Your task to perform on an android device: move an email to a new category in the gmail app Image 0: 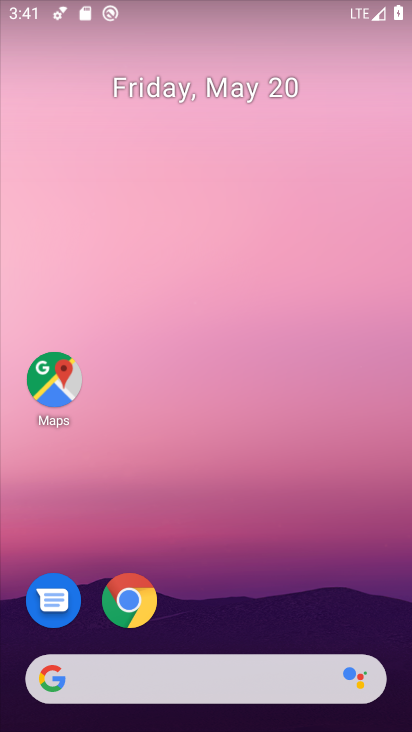
Step 0: drag from (368, 608) to (360, 310)
Your task to perform on an android device: move an email to a new category in the gmail app Image 1: 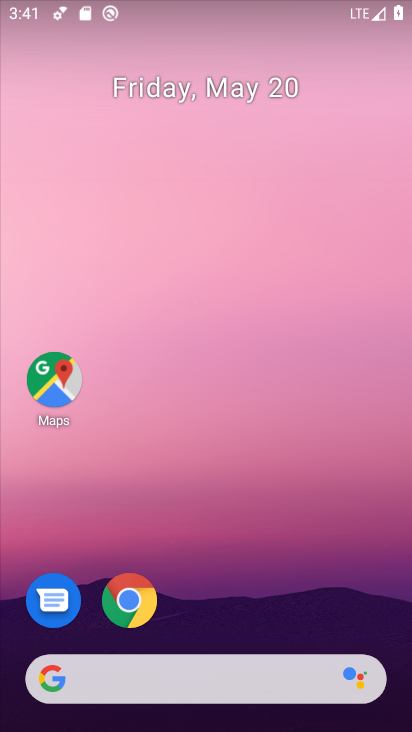
Step 1: drag from (371, 601) to (363, 232)
Your task to perform on an android device: move an email to a new category in the gmail app Image 2: 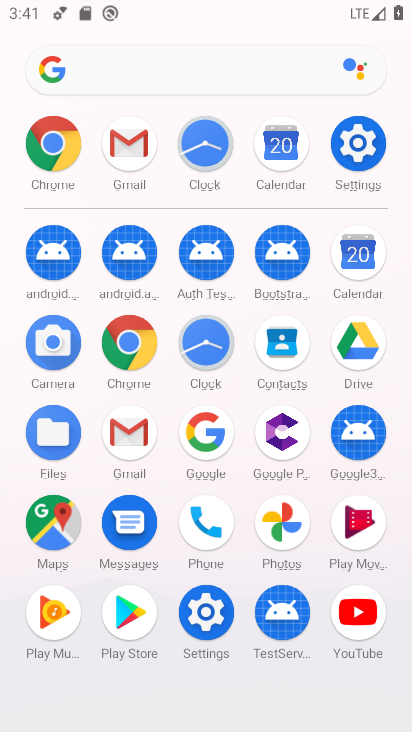
Step 2: click (121, 452)
Your task to perform on an android device: move an email to a new category in the gmail app Image 3: 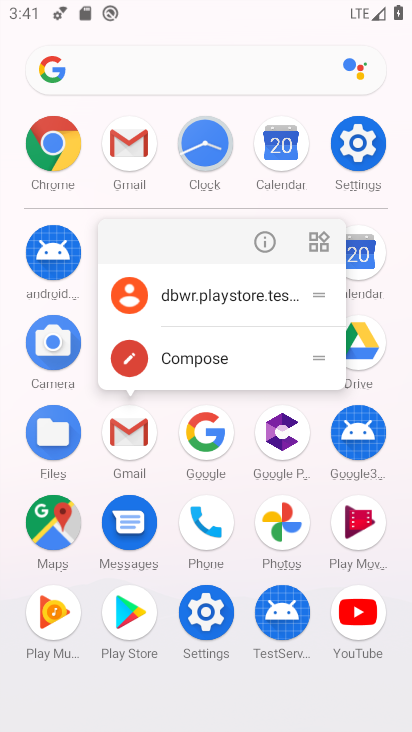
Step 3: click (133, 446)
Your task to perform on an android device: move an email to a new category in the gmail app Image 4: 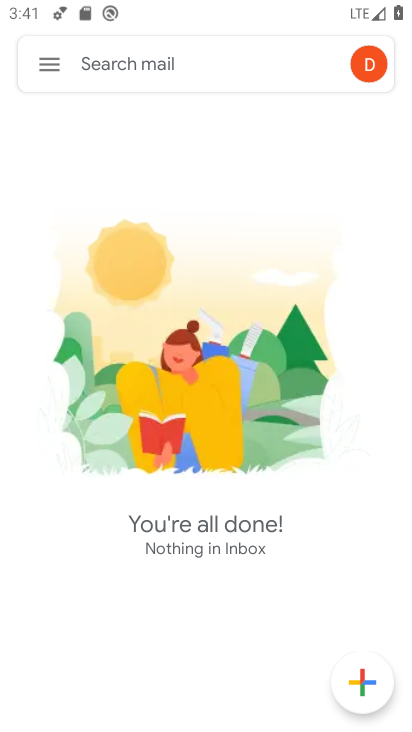
Step 4: click (62, 75)
Your task to perform on an android device: move an email to a new category in the gmail app Image 5: 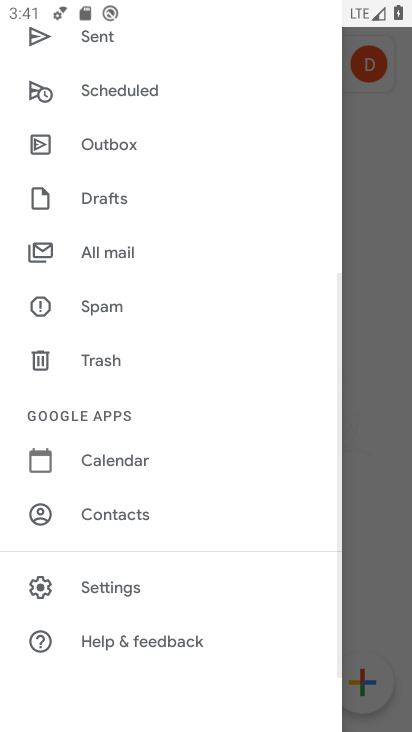
Step 5: drag from (282, 523) to (272, 389)
Your task to perform on an android device: move an email to a new category in the gmail app Image 6: 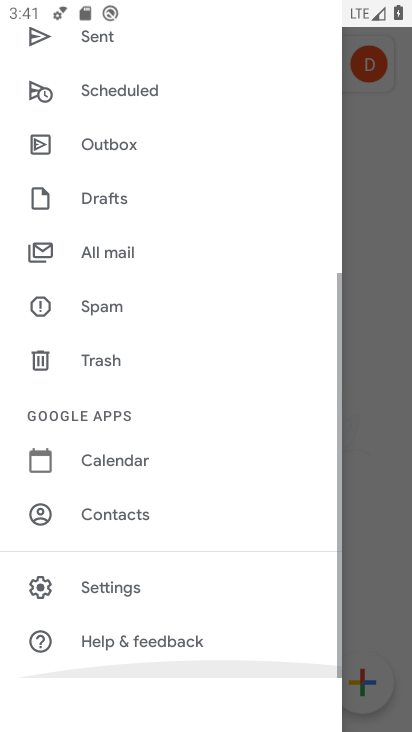
Step 6: drag from (259, 304) to (259, 391)
Your task to perform on an android device: move an email to a new category in the gmail app Image 7: 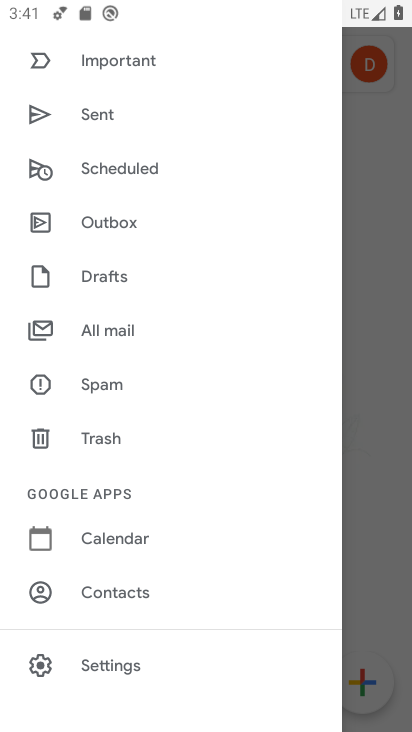
Step 7: drag from (253, 313) to (265, 415)
Your task to perform on an android device: move an email to a new category in the gmail app Image 8: 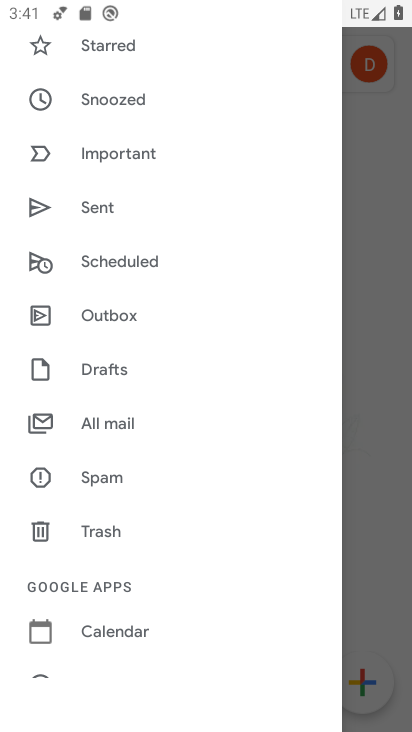
Step 8: drag from (244, 242) to (248, 366)
Your task to perform on an android device: move an email to a new category in the gmail app Image 9: 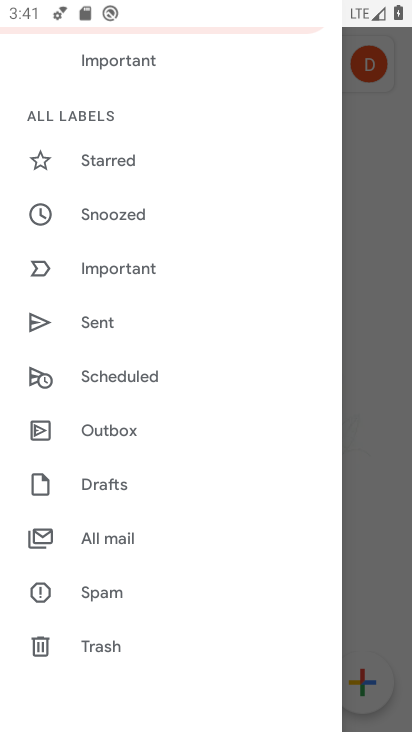
Step 9: drag from (246, 223) to (251, 346)
Your task to perform on an android device: move an email to a new category in the gmail app Image 10: 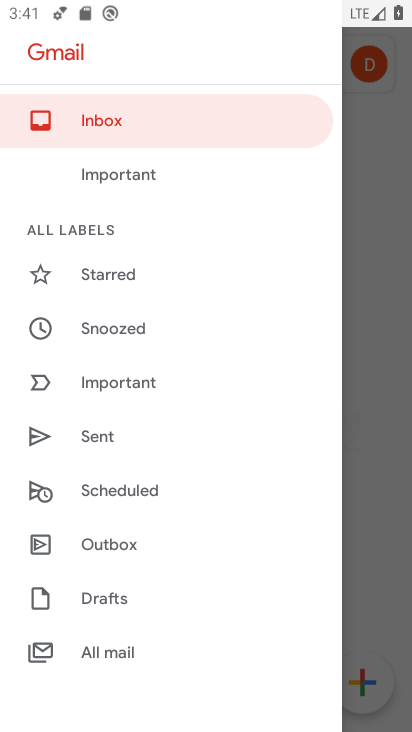
Step 10: drag from (242, 242) to (243, 354)
Your task to perform on an android device: move an email to a new category in the gmail app Image 11: 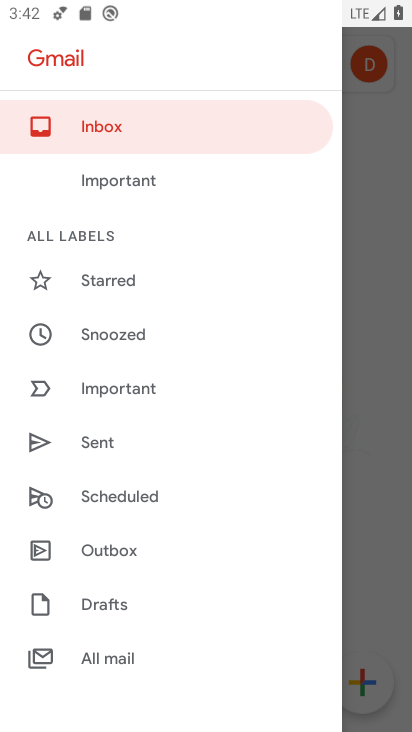
Step 11: click (189, 124)
Your task to perform on an android device: move an email to a new category in the gmail app Image 12: 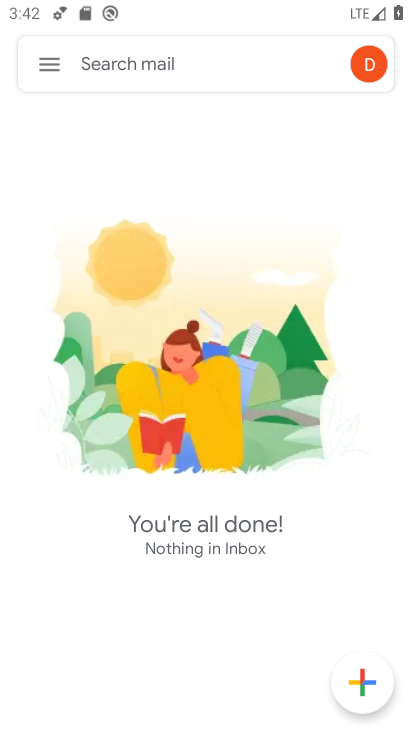
Step 12: task complete